Your task to perform on an android device: change notifications settings Image 0: 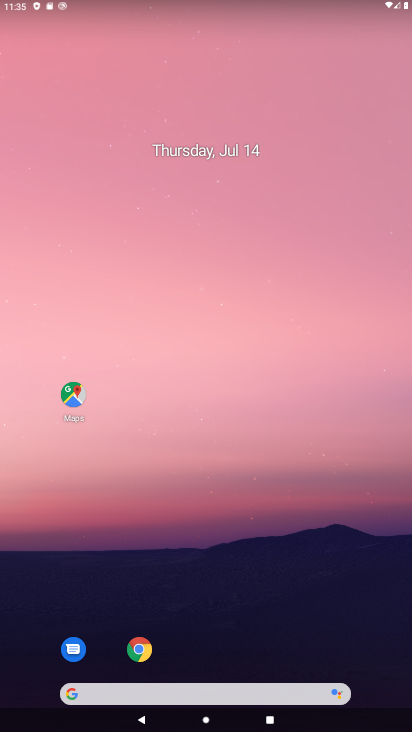
Step 0: drag from (212, 613) to (219, 159)
Your task to perform on an android device: change notifications settings Image 1: 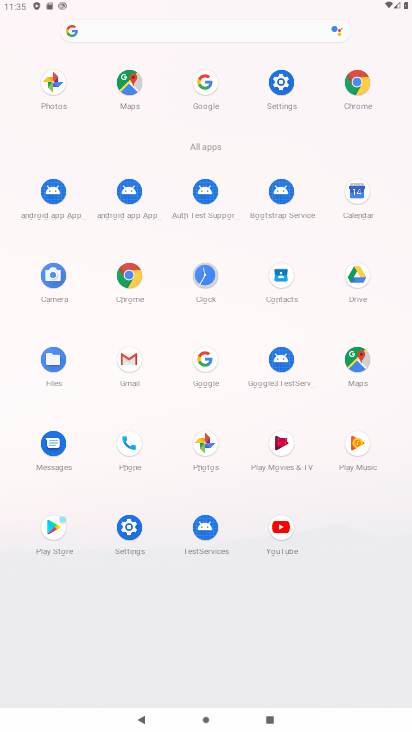
Step 1: click (270, 64)
Your task to perform on an android device: change notifications settings Image 2: 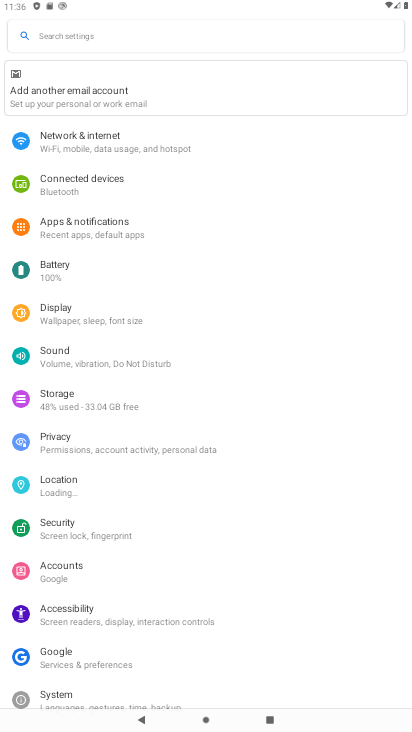
Step 2: click (83, 232)
Your task to perform on an android device: change notifications settings Image 3: 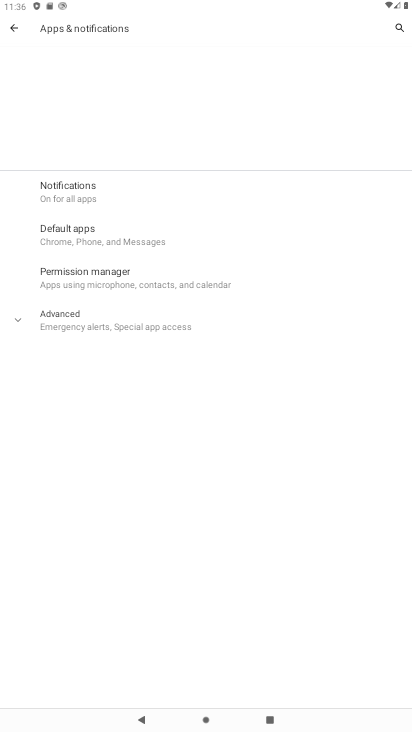
Step 3: click (62, 285)
Your task to perform on an android device: change notifications settings Image 4: 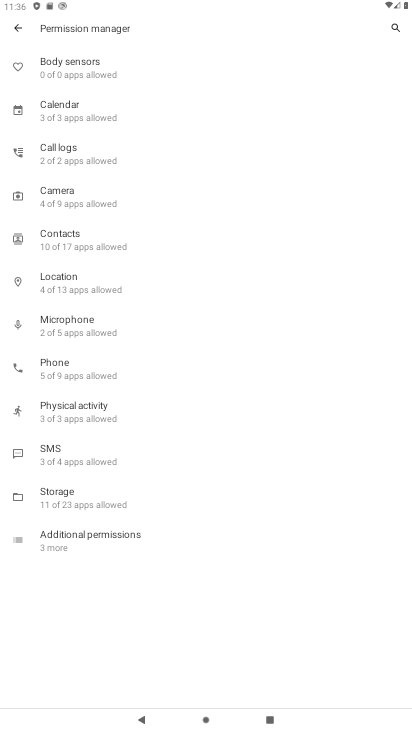
Step 4: click (13, 22)
Your task to perform on an android device: change notifications settings Image 5: 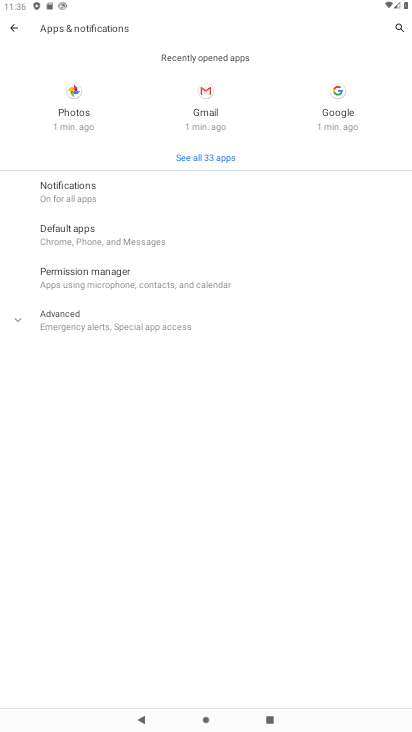
Step 5: click (99, 176)
Your task to perform on an android device: change notifications settings Image 6: 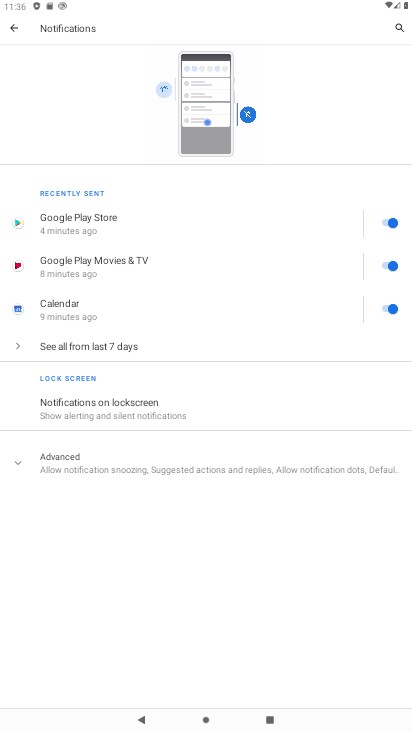
Step 6: task complete